Your task to perform on an android device: Turn off the flashlight Image 0: 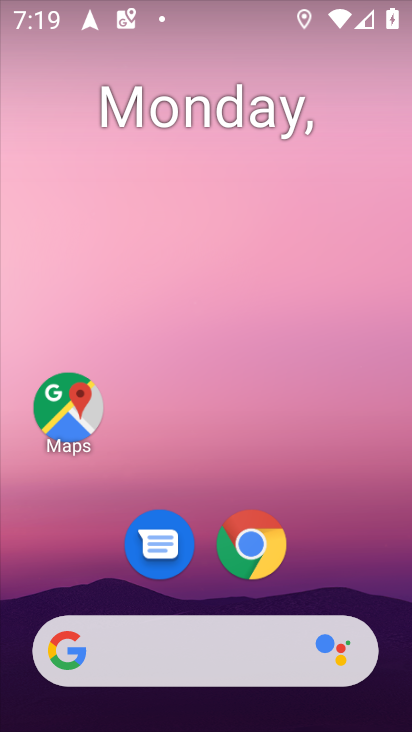
Step 0: drag from (312, 513) to (215, 18)
Your task to perform on an android device: Turn off the flashlight Image 1: 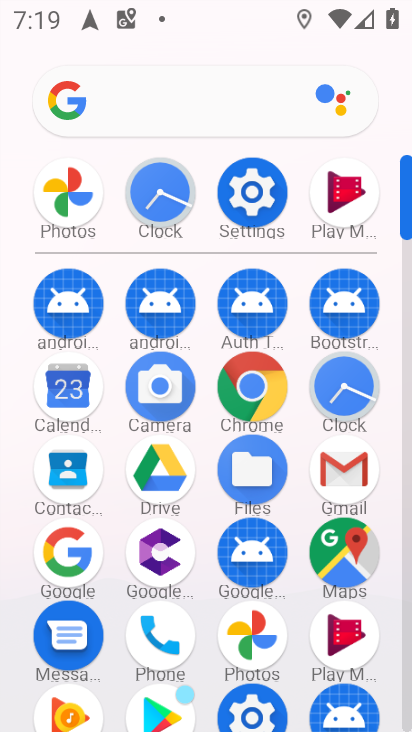
Step 1: click (251, 199)
Your task to perform on an android device: Turn off the flashlight Image 2: 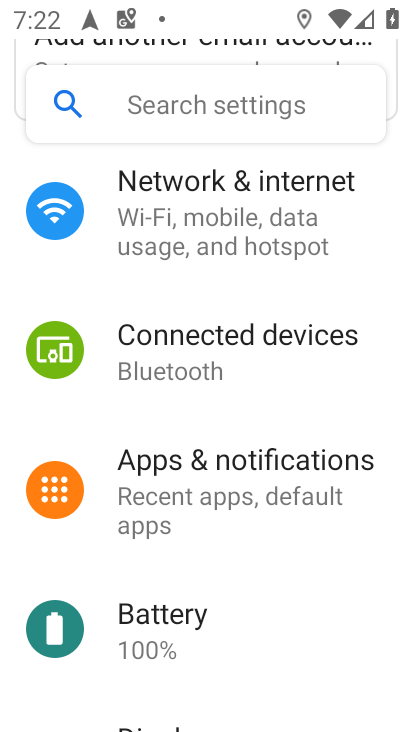
Step 2: click (172, 468)
Your task to perform on an android device: Turn off the flashlight Image 3: 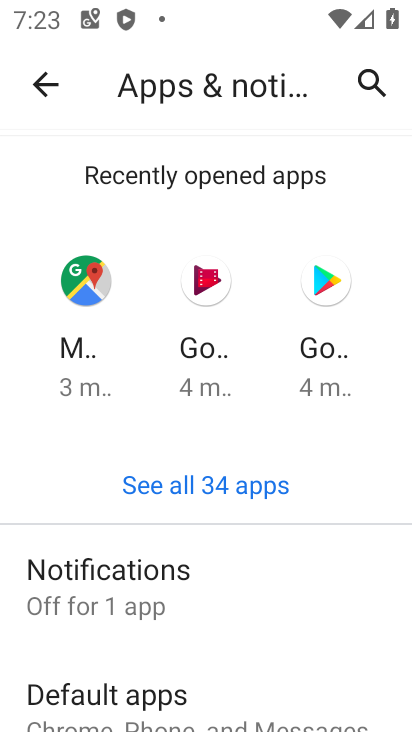
Step 3: task complete